Your task to perform on an android device: Check the news Image 0: 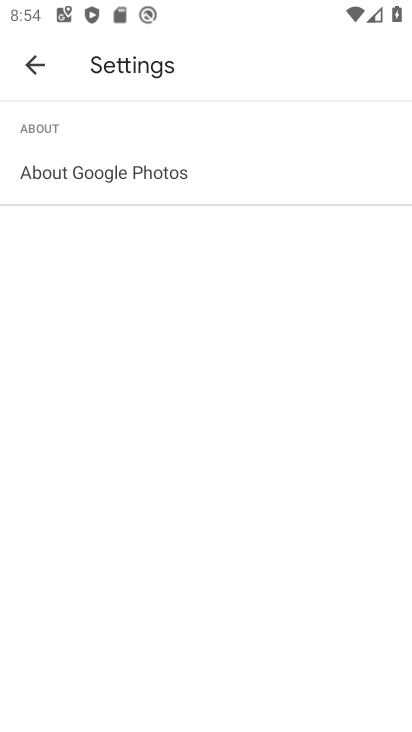
Step 0: press home button
Your task to perform on an android device: Check the news Image 1: 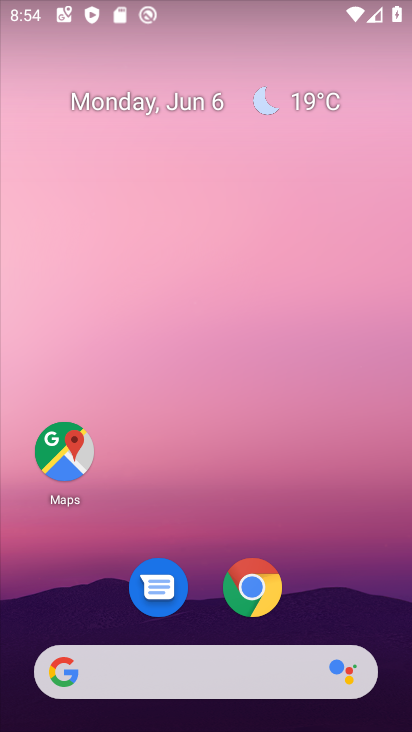
Step 1: task complete